Your task to perform on an android device: Open calendar and show me the first week of next month Image 0: 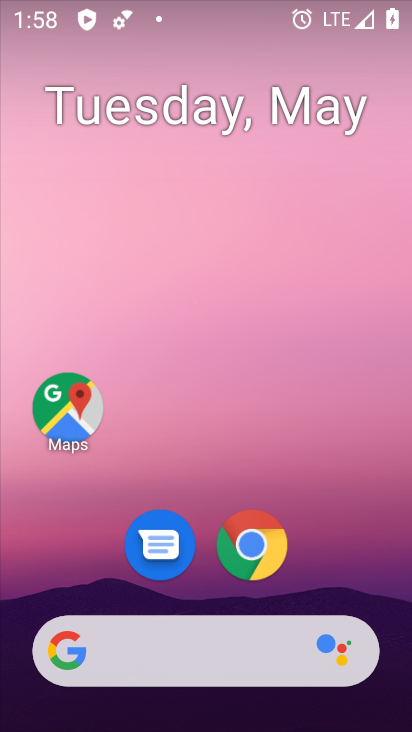
Step 0: drag from (325, 499) to (230, 32)
Your task to perform on an android device: Open calendar and show me the first week of next month Image 1: 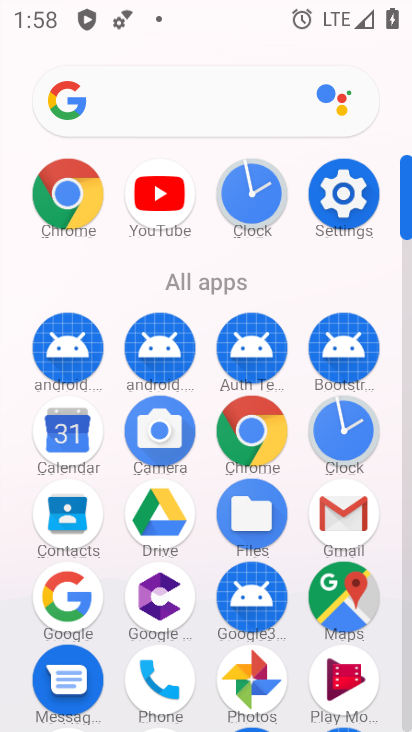
Step 1: drag from (12, 559) to (9, 237)
Your task to perform on an android device: Open calendar and show me the first week of next month Image 2: 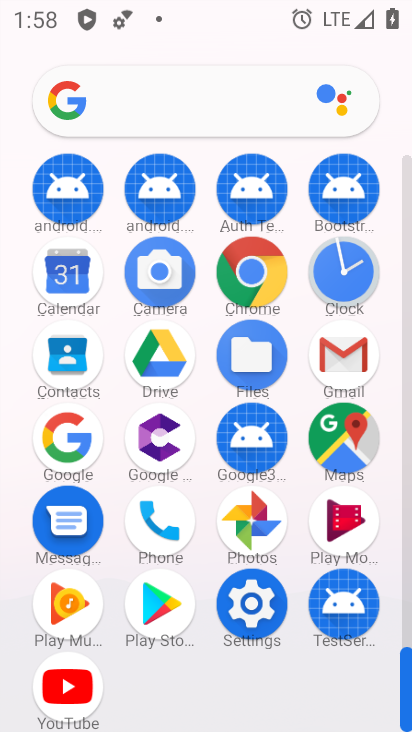
Step 2: click (78, 274)
Your task to perform on an android device: Open calendar and show me the first week of next month Image 3: 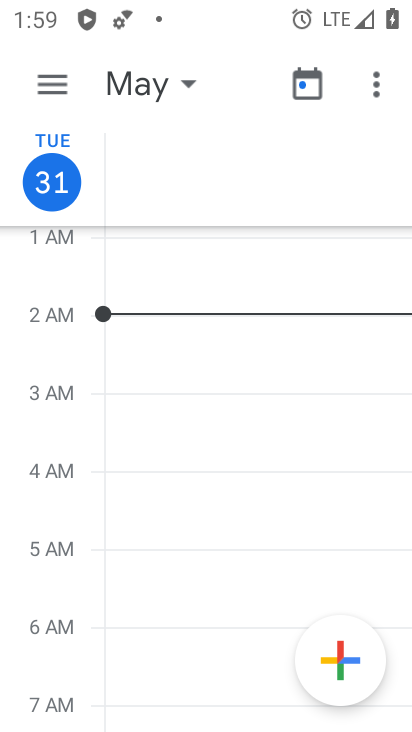
Step 3: click (120, 84)
Your task to perform on an android device: Open calendar and show me the first week of next month Image 4: 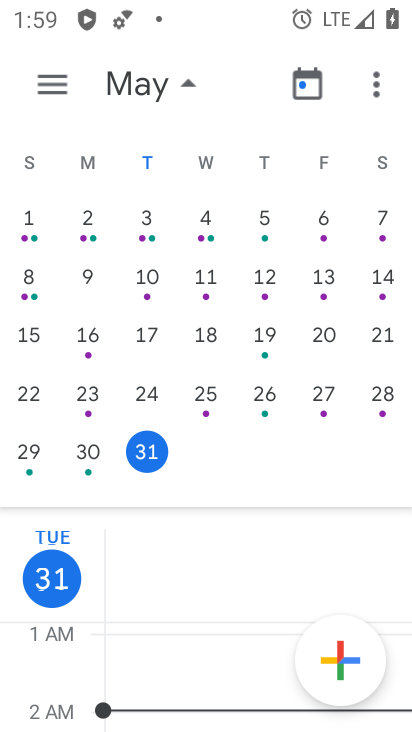
Step 4: drag from (398, 301) to (4, 313)
Your task to perform on an android device: Open calendar and show me the first week of next month Image 5: 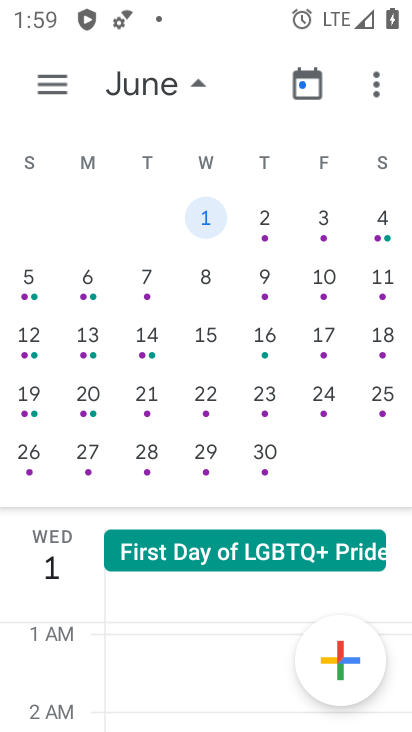
Step 5: click (52, 82)
Your task to perform on an android device: Open calendar and show me the first week of next month Image 6: 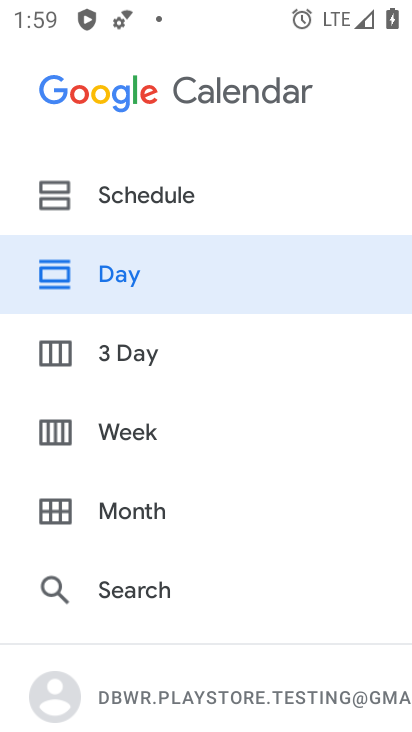
Step 6: click (117, 425)
Your task to perform on an android device: Open calendar and show me the first week of next month Image 7: 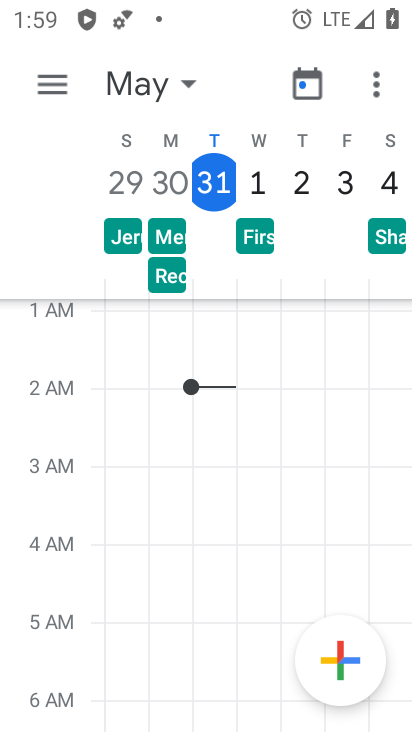
Step 7: task complete